Your task to perform on an android device: Go to Google Image 0: 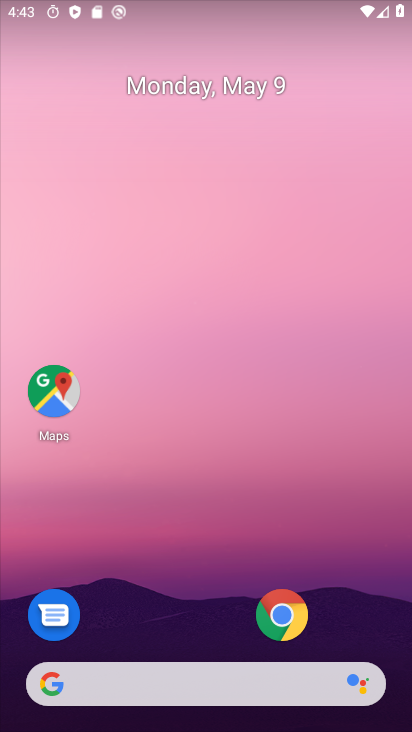
Step 0: drag from (202, 668) to (265, 232)
Your task to perform on an android device: Go to Google Image 1: 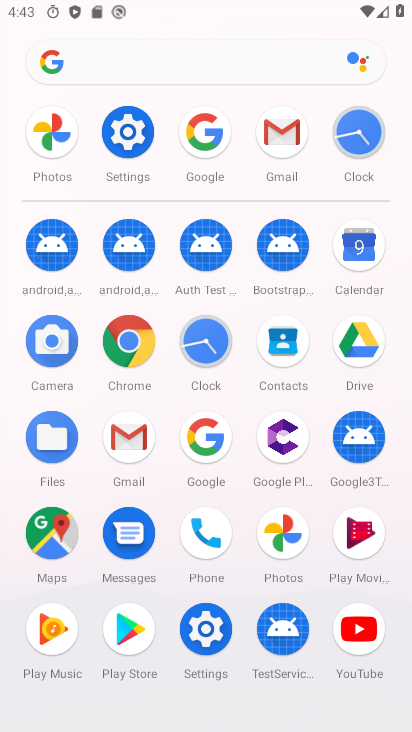
Step 1: click (215, 435)
Your task to perform on an android device: Go to Google Image 2: 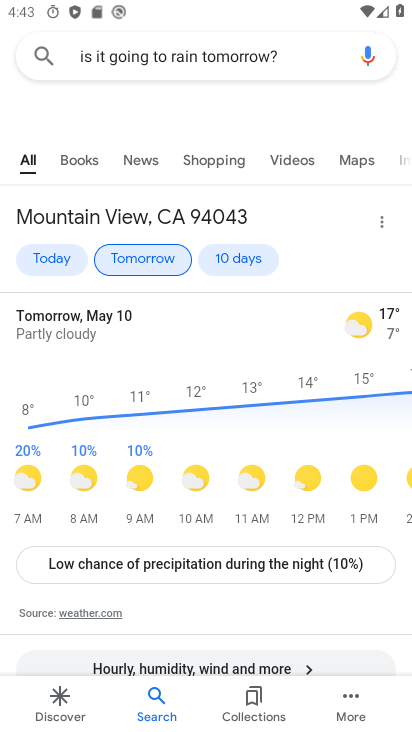
Step 2: click (295, 48)
Your task to perform on an android device: Go to Google Image 3: 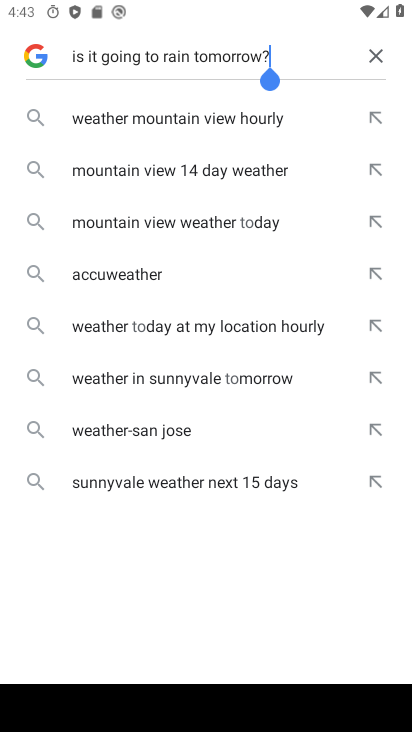
Step 3: click (370, 59)
Your task to perform on an android device: Go to Google Image 4: 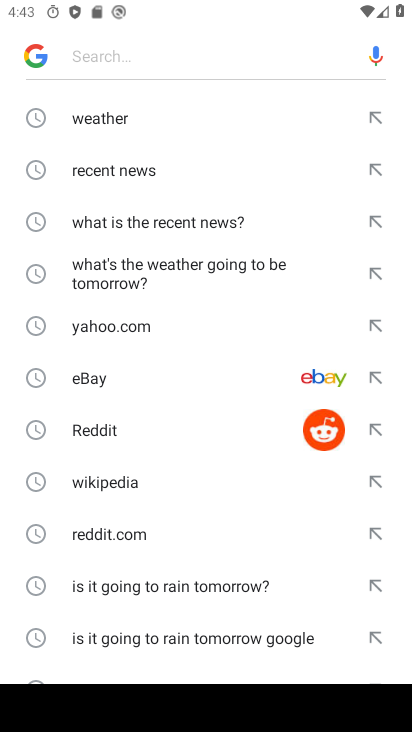
Step 4: task complete